Your task to perform on an android device: Search for Italian restaurants on Maps Image 0: 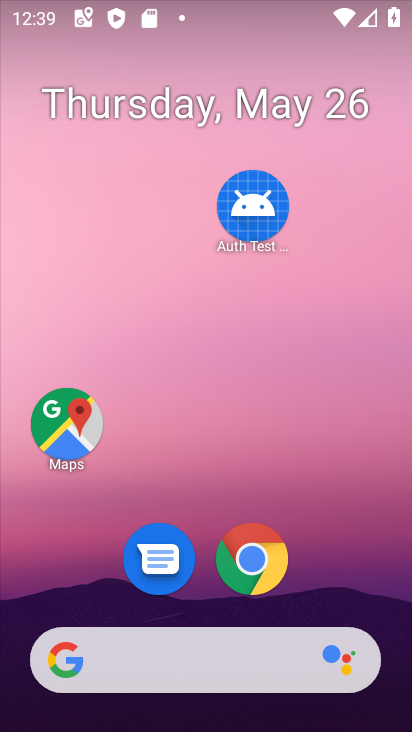
Step 0: click (56, 430)
Your task to perform on an android device: Search for Italian restaurants on Maps Image 1: 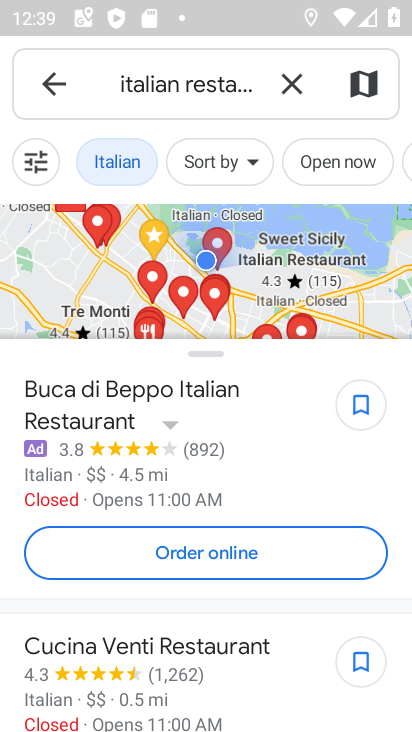
Step 1: task complete